Your task to perform on an android device: Go to Google Image 0: 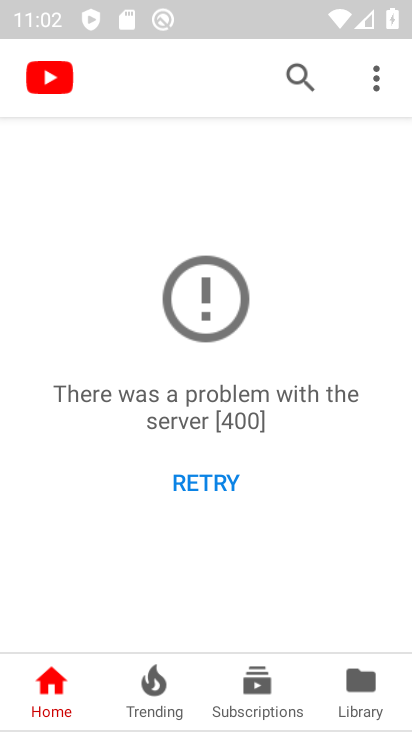
Step 0: press home button
Your task to perform on an android device: Go to Google Image 1: 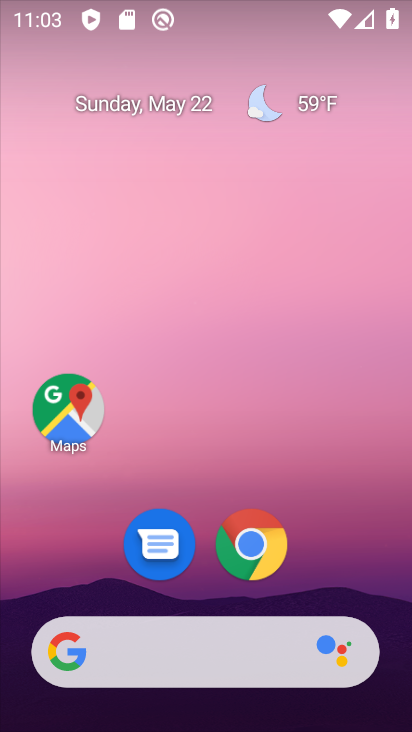
Step 1: drag from (322, 575) to (1, 276)
Your task to perform on an android device: Go to Google Image 2: 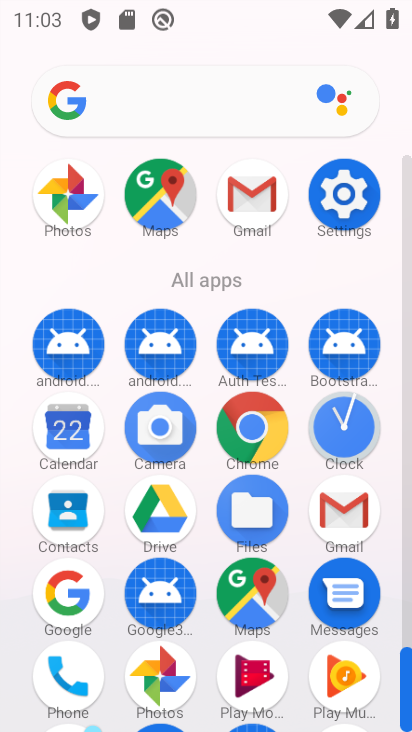
Step 2: click (79, 582)
Your task to perform on an android device: Go to Google Image 3: 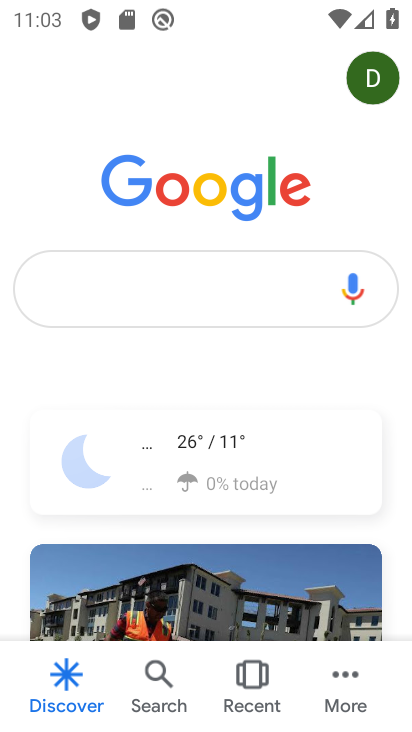
Step 3: task complete